Your task to perform on an android device: turn off improve location accuracy Image 0: 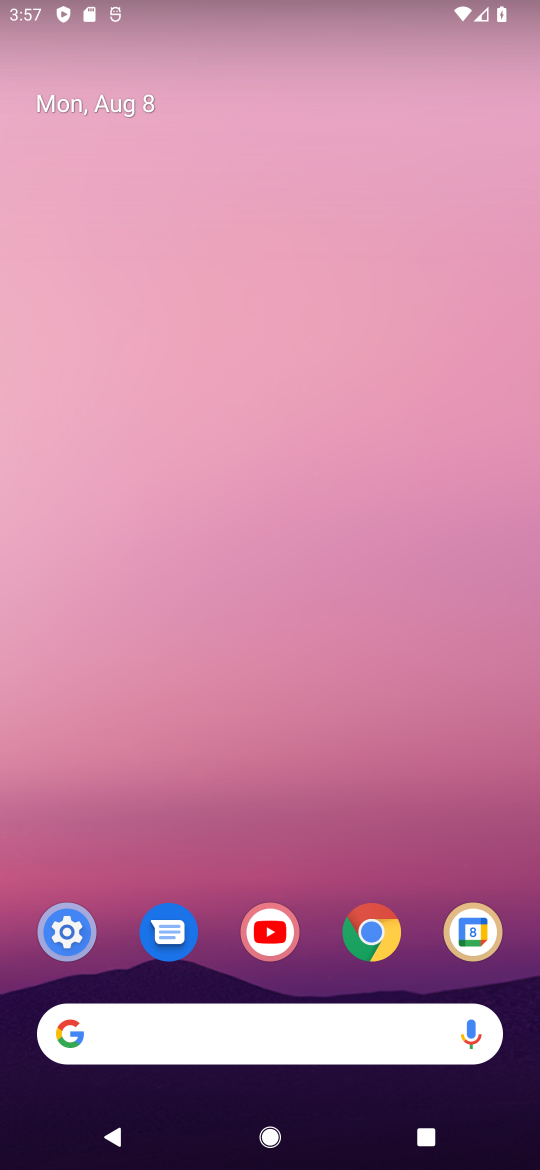
Step 0: click (64, 929)
Your task to perform on an android device: turn off improve location accuracy Image 1: 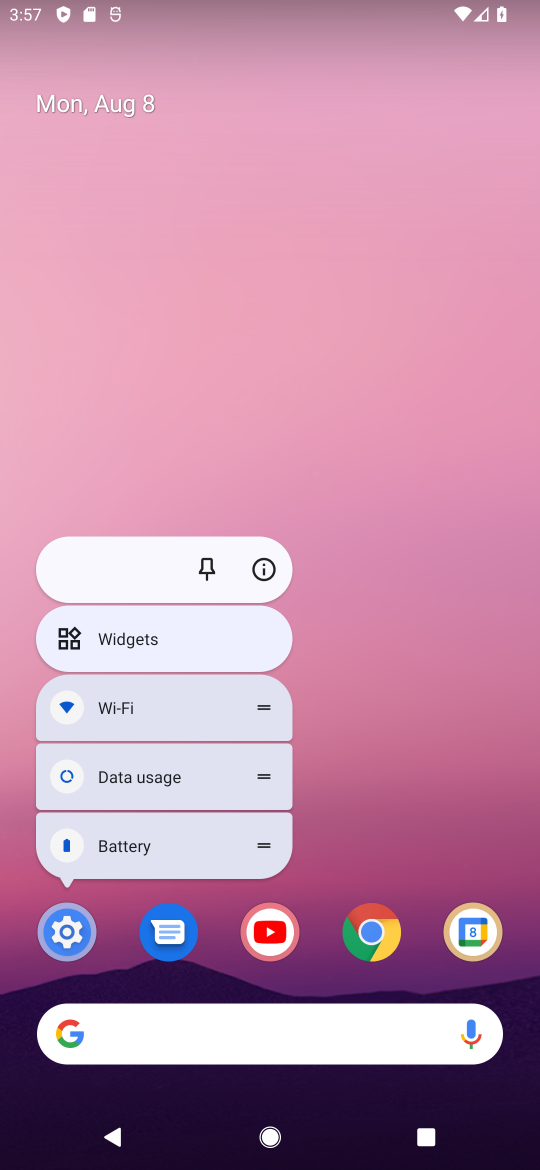
Step 1: click (64, 929)
Your task to perform on an android device: turn off improve location accuracy Image 2: 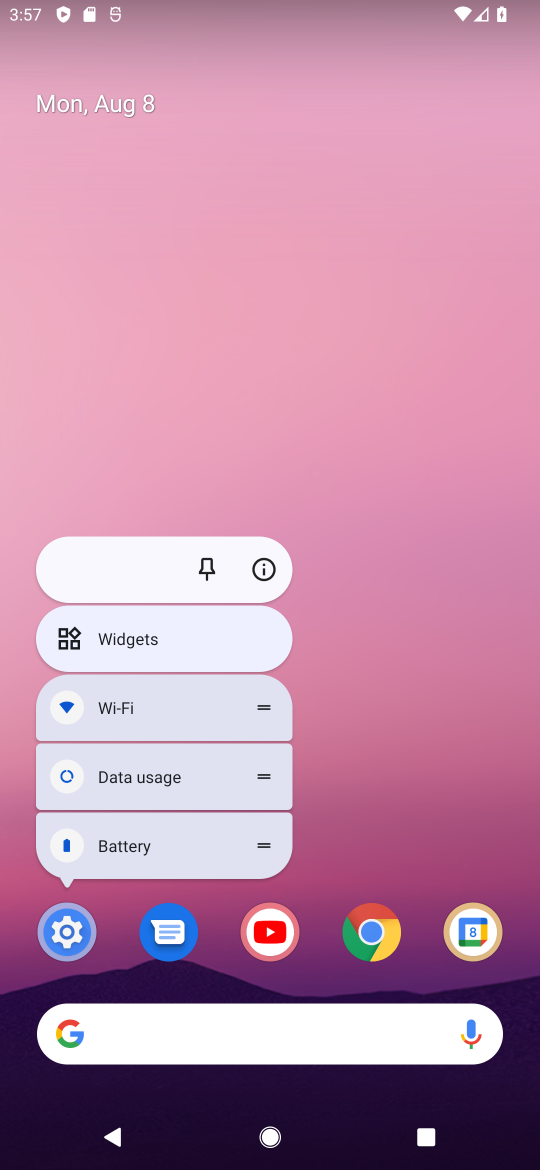
Step 2: click (67, 934)
Your task to perform on an android device: turn off improve location accuracy Image 3: 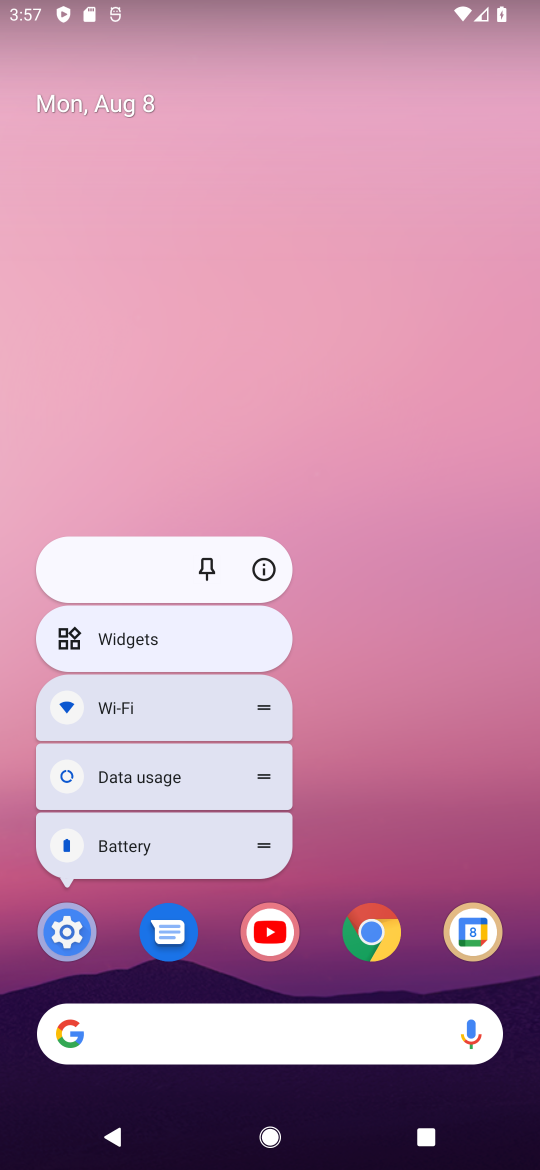
Step 3: click (67, 934)
Your task to perform on an android device: turn off improve location accuracy Image 4: 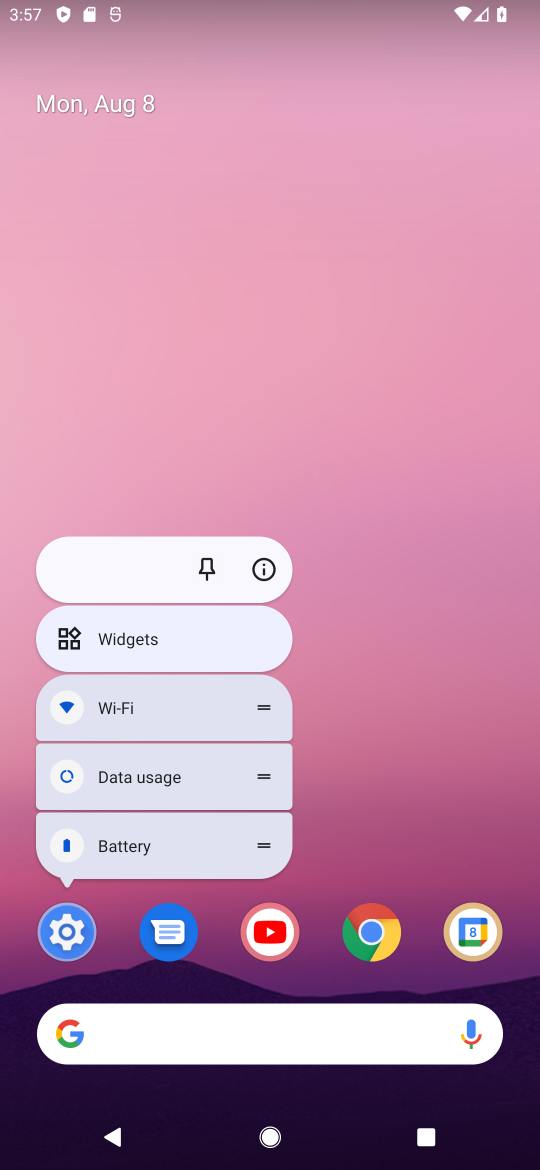
Step 4: click (67, 934)
Your task to perform on an android device: turn off improve location accuracy Image 5: 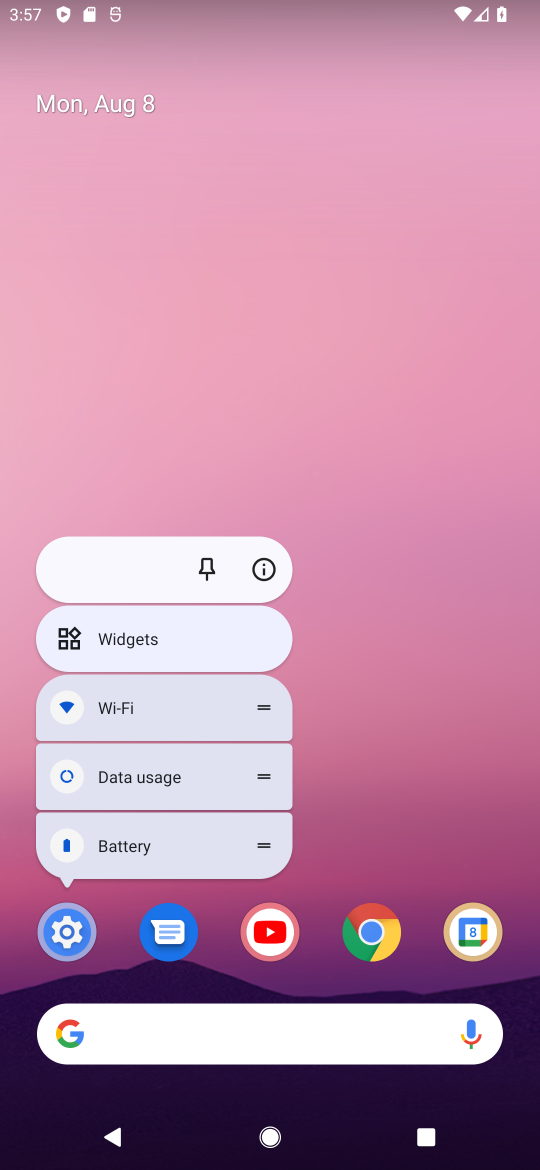
Step 5: click (64, 945)
Your task to perform on an android device: turn off improve location accuracy Image 6: 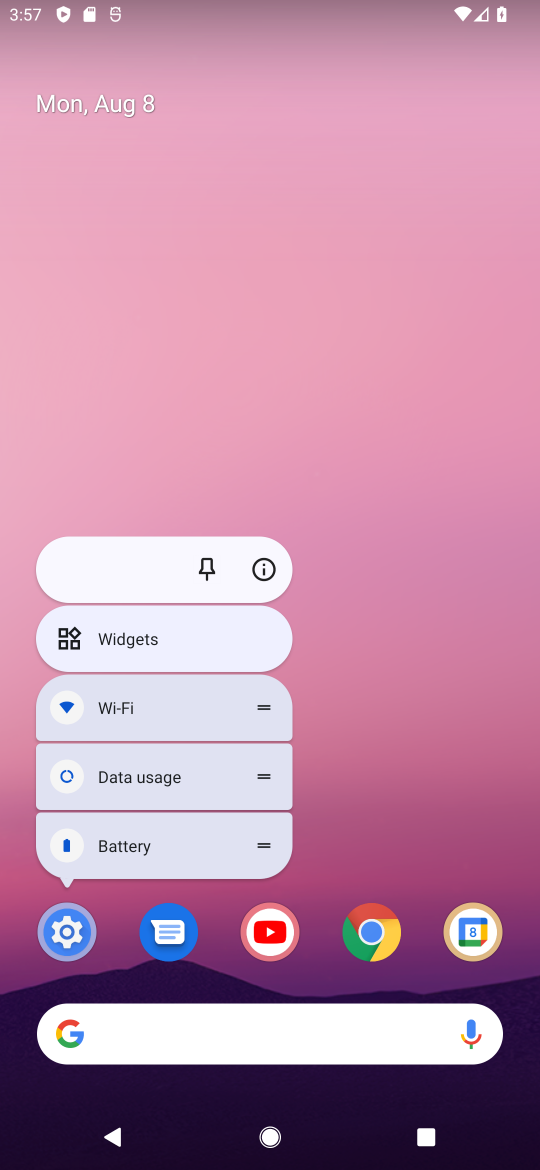
Step 6: click (64, 945)
Your task to perform on an android device: turn off improve location accuracy Image 7: 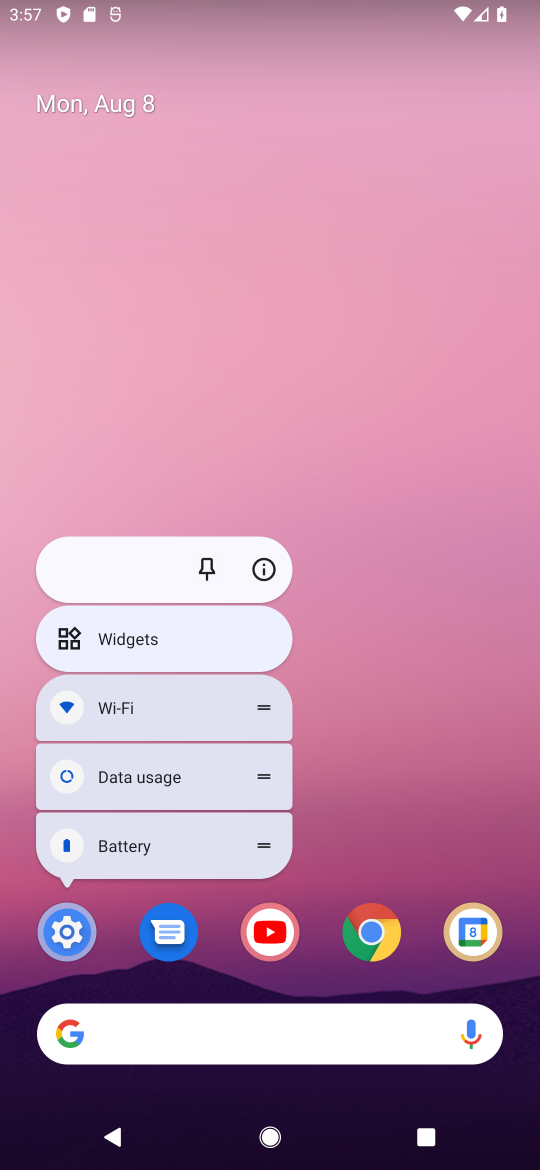
Step 7: click (64, 945)
Your task to perform on an android device: turn off improve location accuracy Image 8: 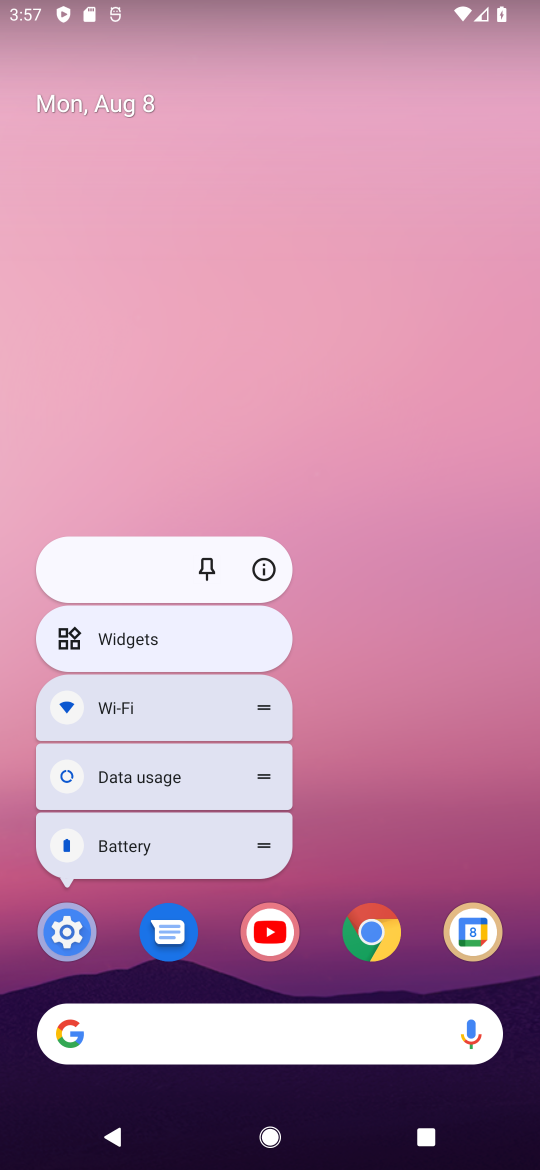
Step 8: click (64, 945)
Your task to perform on an android device: turn off improve location accuracy Image 9: 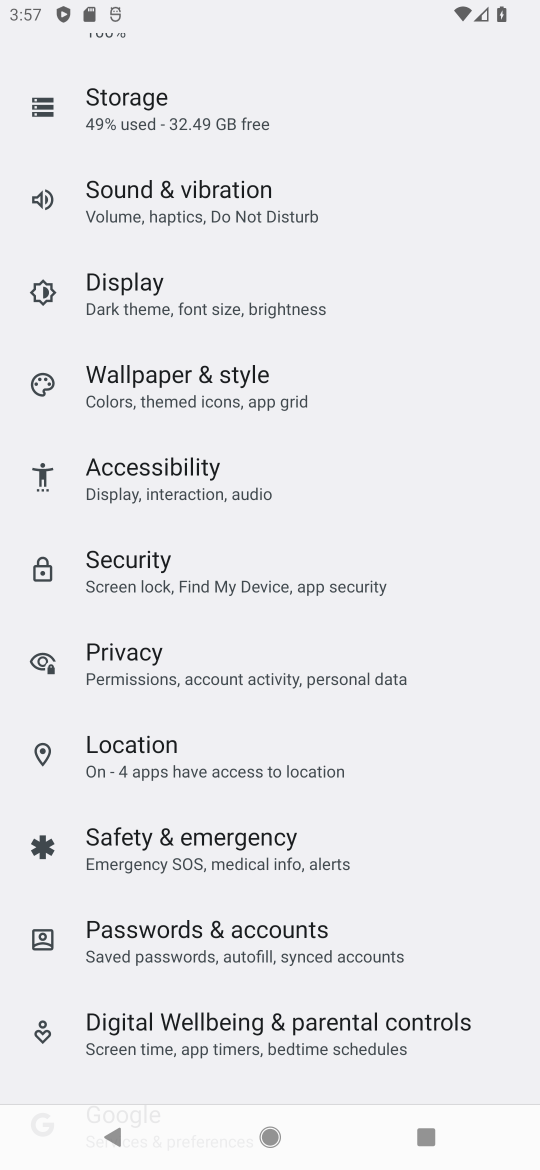
Step 9: click (234, 747)
Your task to perform on an android device: turn off improve location accuracy Image 10: 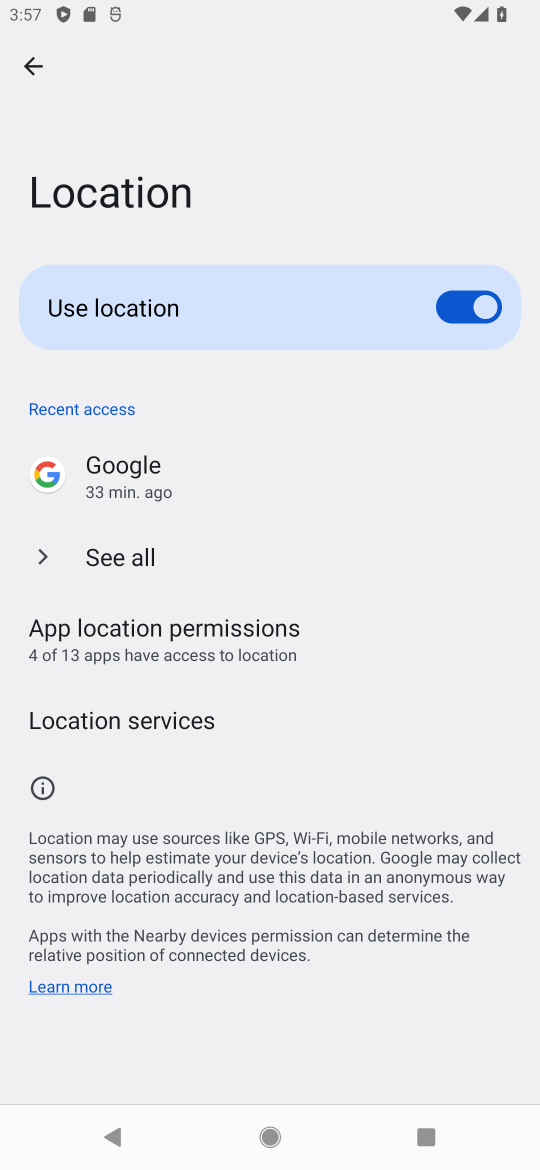
Step 10: click (245, 729)
Your task to perform on an android device: turn off improve location accuracy Image 11: 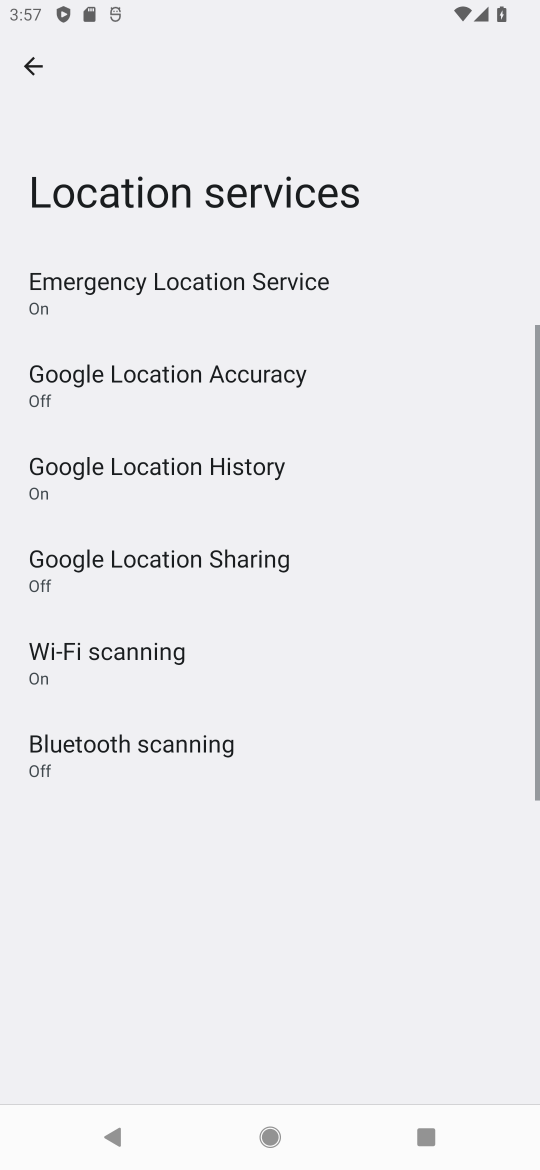
Step 11: click (328, 377)
Your task to perform on an android device: turn off improve location accuracy Image 12: 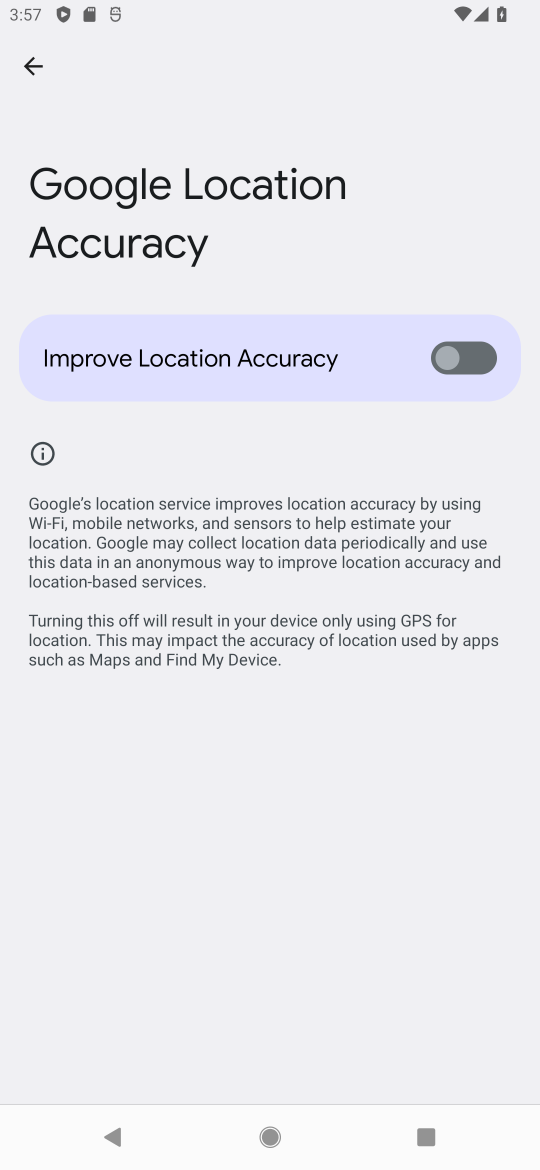
Step 12: task complete